Your task to perform on an android device: Open the calendar and show me this week's events? Image 0: 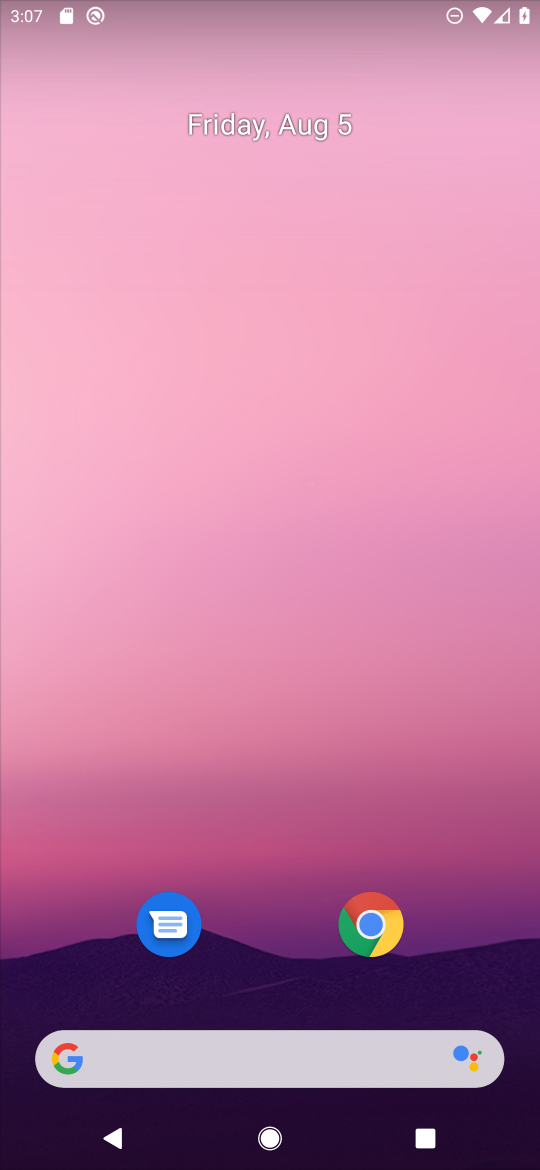
Step 0: drag from (260, 674) to (325, 61)
Your task to perform on an android device: Open the calendar and show me this week's events? Image 1: 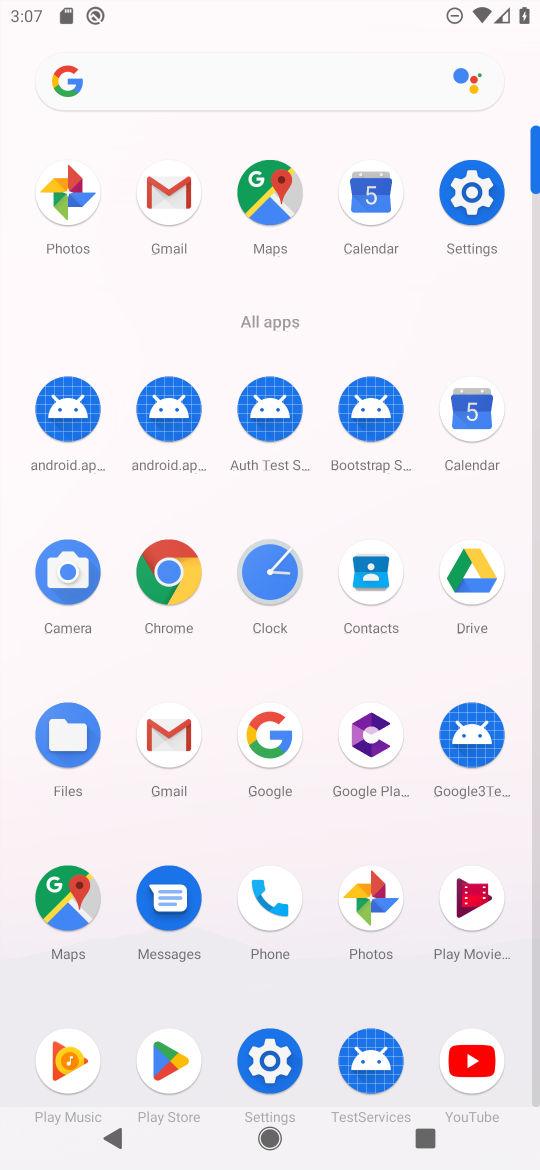
Step 1: click (486, 407)
Your task to perform on an android device: Open the calendar and show me this week's events? Image 2: 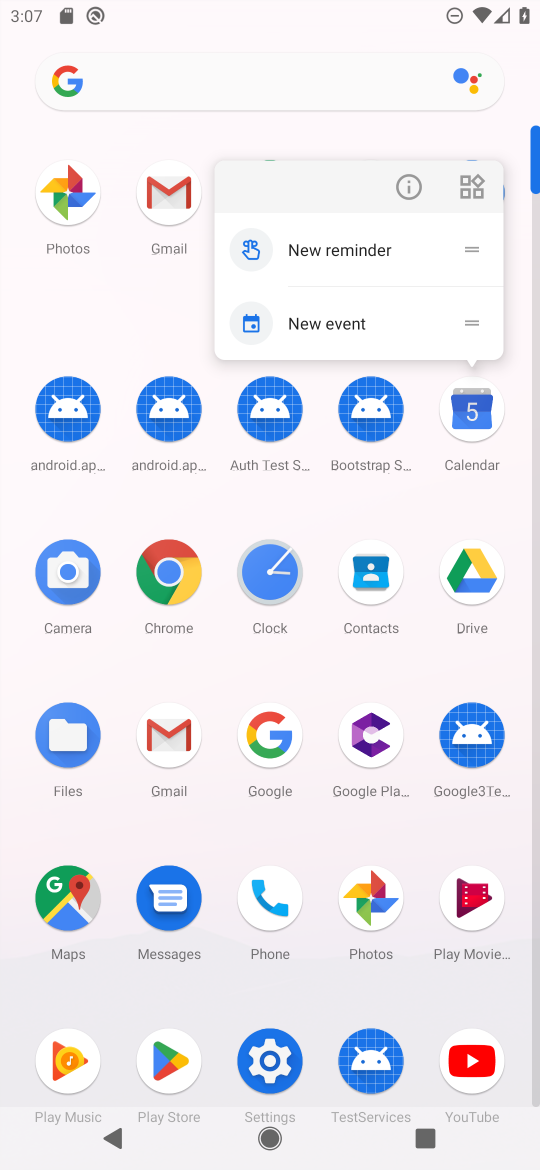
Step 2: click (470, 402)
Your task to perform on an android device: Open the calendar and show me this week's events? Image 3: 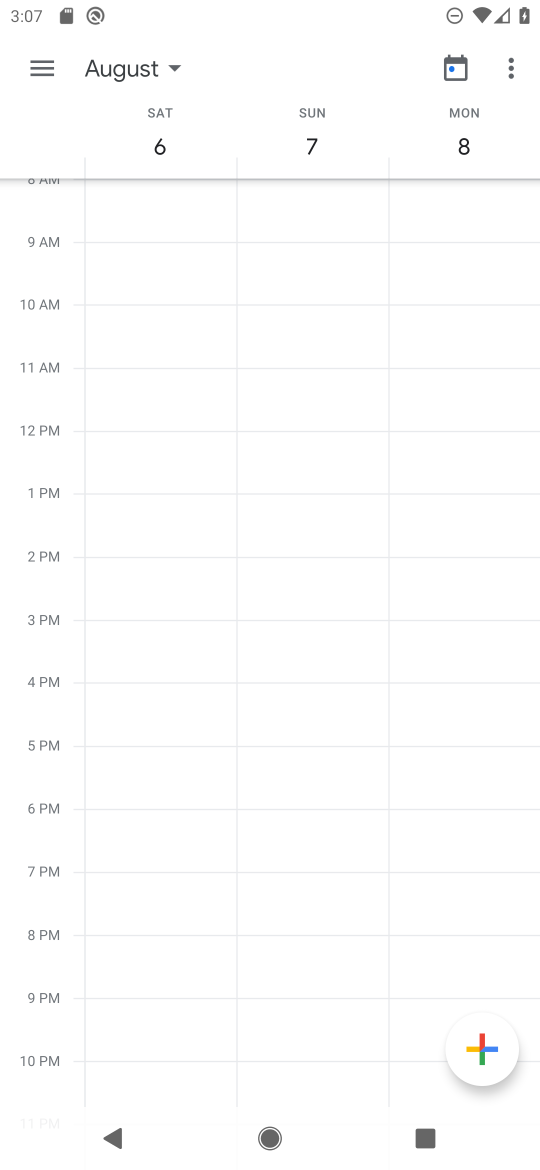
Step 3: click (41, 62)
Your task to perform on an android device: Open the calendar and show me this week's events? Image 4: 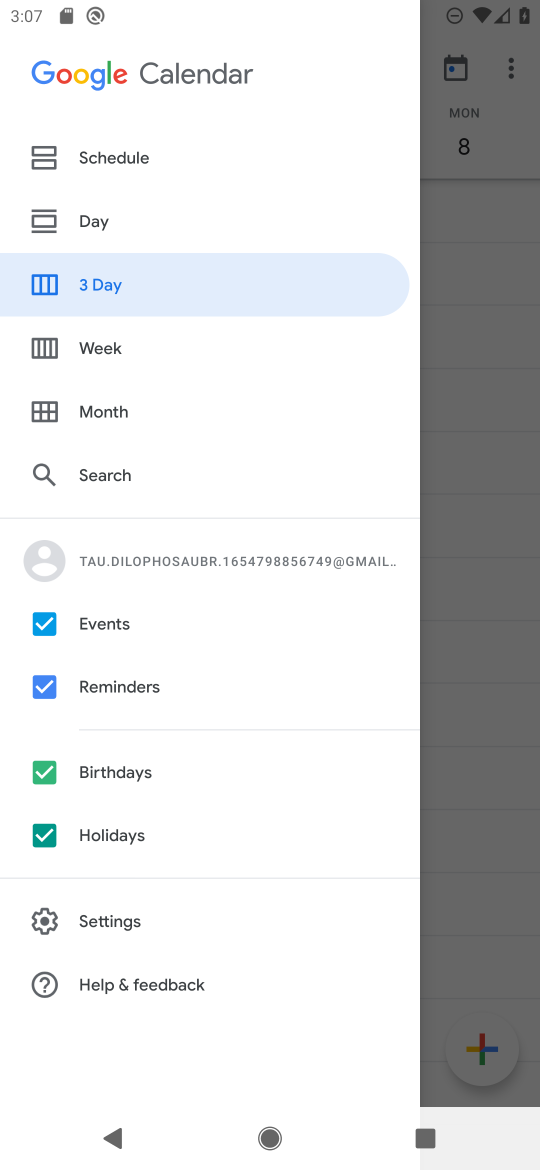
Step 4: click (92, 356)
Your task to perform on an android device: Open the calendar and show me this week's events? Image 5: 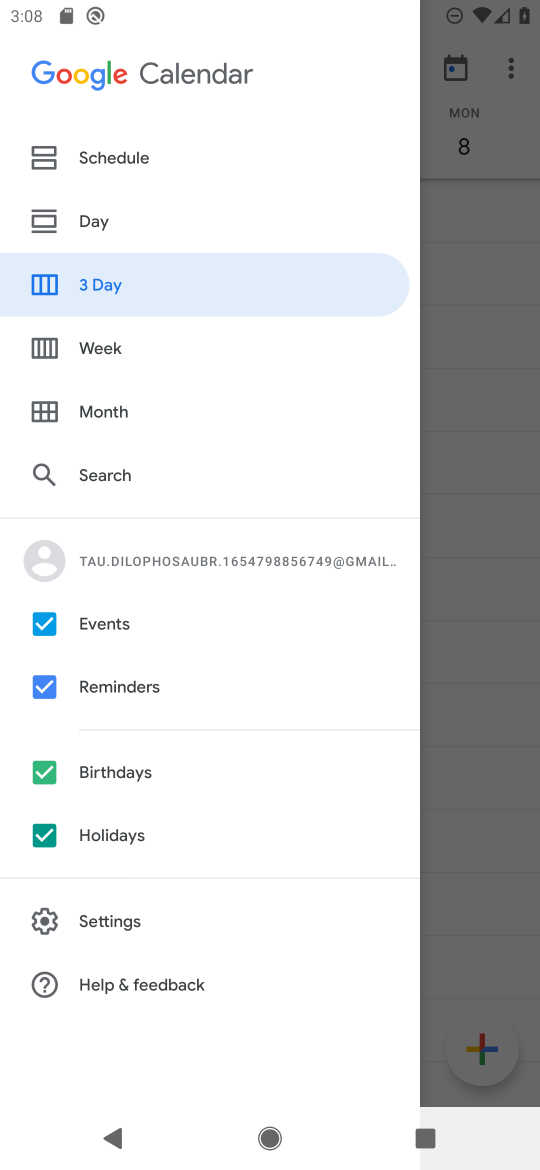
Step 5: click (101, 357)
Your task to perform on an android device: Open the calendar and show me this week's events? Image 6: 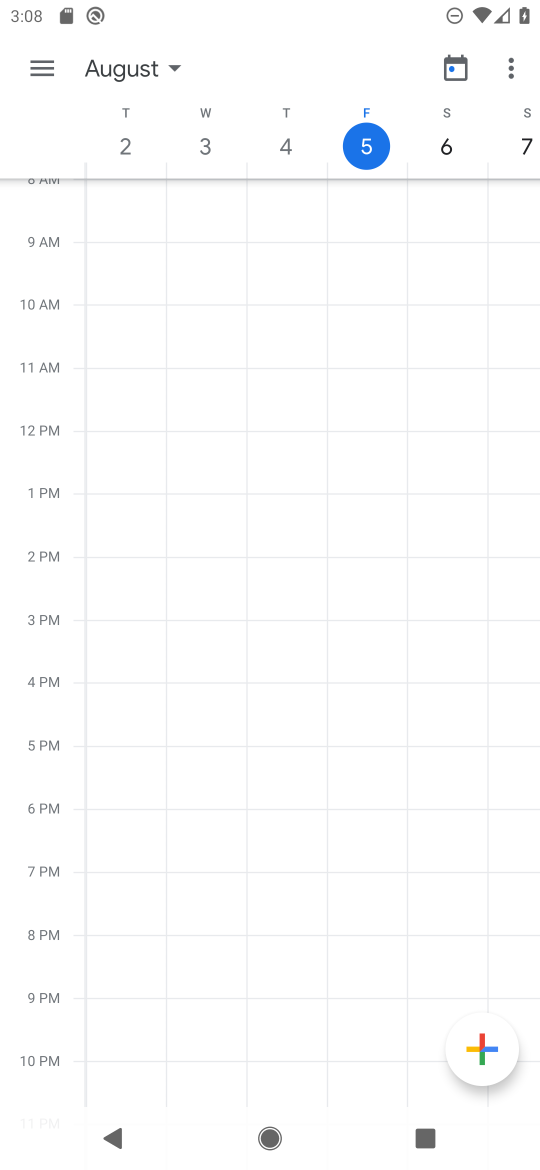
Step 6: click (101, 352)
Your task to perform on an android device: Open the calendar and show me this week's events? Image 7: 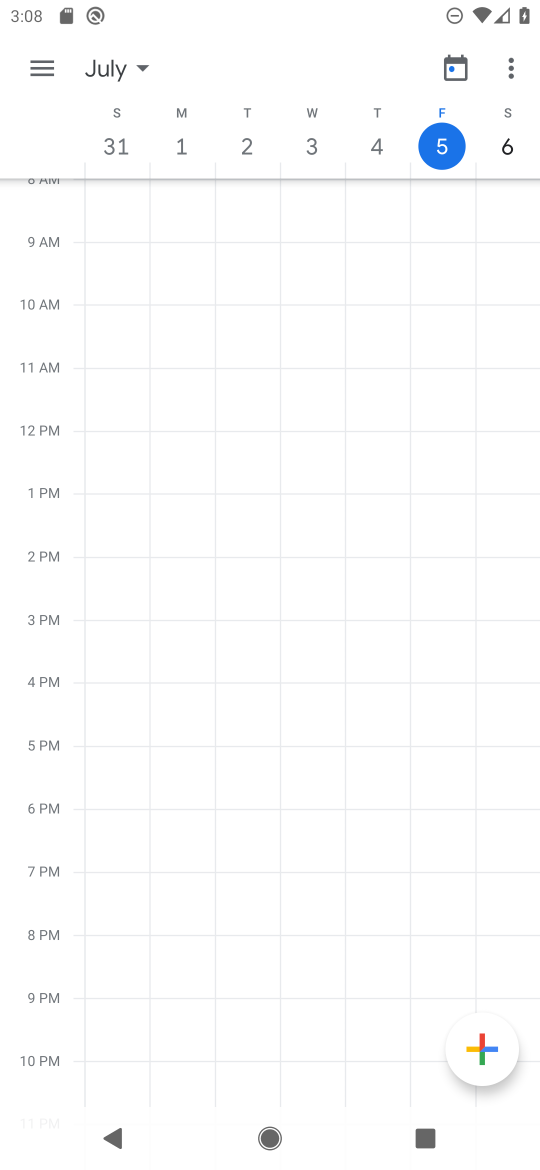
Step 7: task complete